Your task to perform on an android device: allow notifications from all sites in the chrome app Image 0: 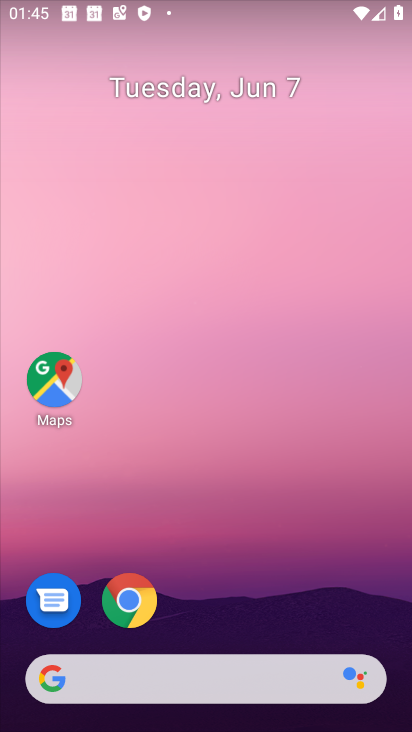
Step 0: click (128, 602)
Your task to perform on an android device: allow notifications from all sites in the chrome app Image 1: 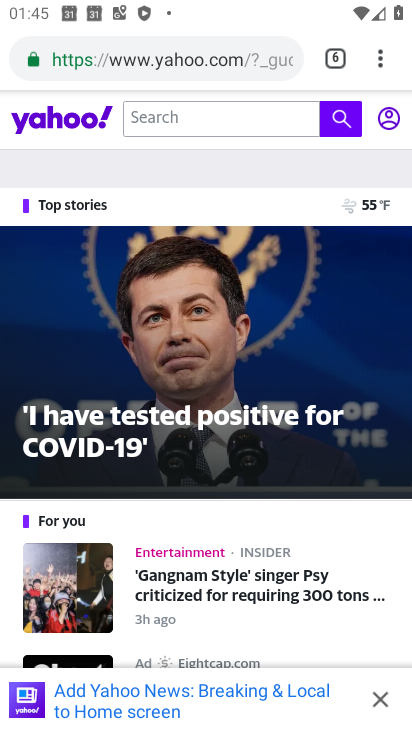
Step 1: click (381, 65)
Your task to perform on an android device: allow notifications from all sites in the chrome app Image 2: 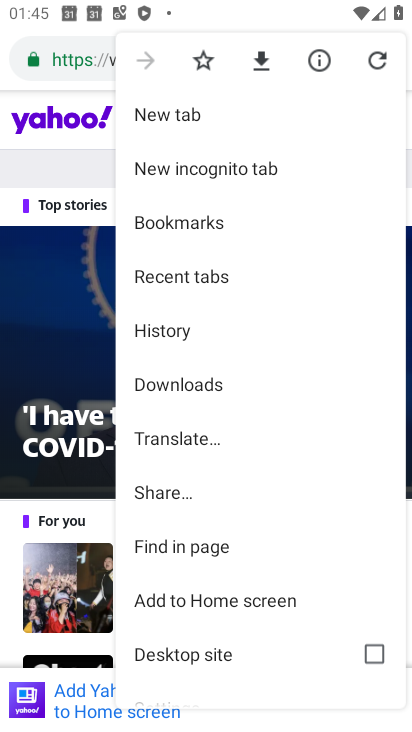
Step 2: drag from (217, 613) to (207, 276)
Your task to perform on an android device: allow notifications from all sites in the chrome app Image 3: 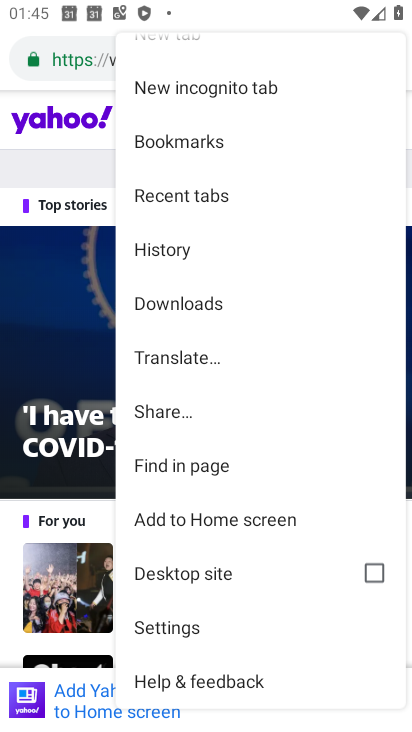
Step 3: click (175, 621)
Your task to perform on an android device: allow notifications from all sites in the chrome app Image 4: 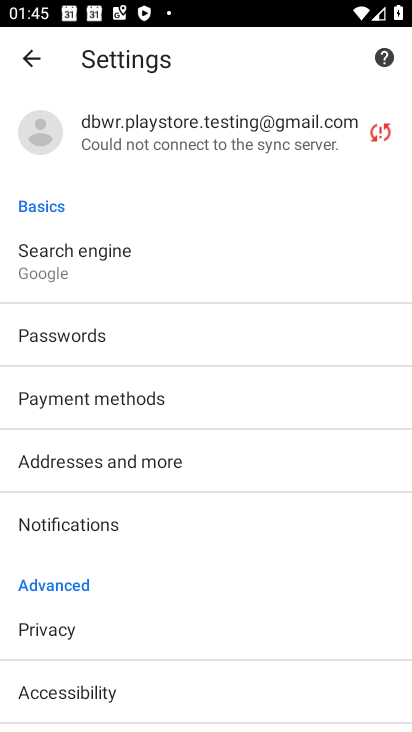
Step 4: drag from (129, 645) to (160, 264)
Your task to perform on an android device: allow notifications from all sites in the chrome app Image 5: 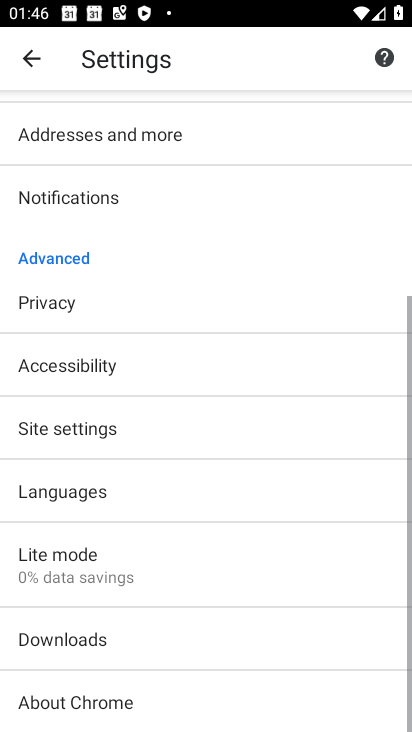
Step 5: click (75, 426)
Your task to perform on an android device: allow notifications from all sites in the chrome app Image 6: 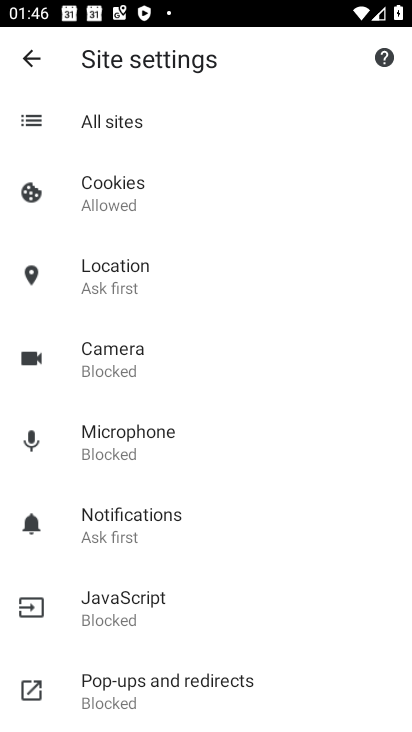
Step 6: click (134, 518)
Your task to perform on an android device: allow notifications from all sites in the chrome app Image 7: 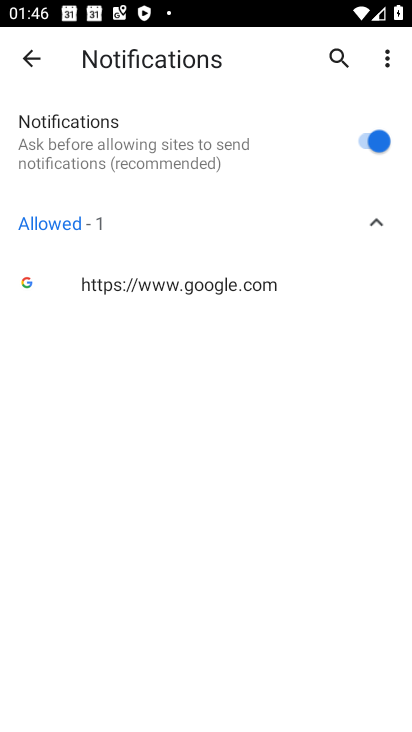
Step 7: task complete